Your task to perform on an android device: uninstall "Skype" Image 0: 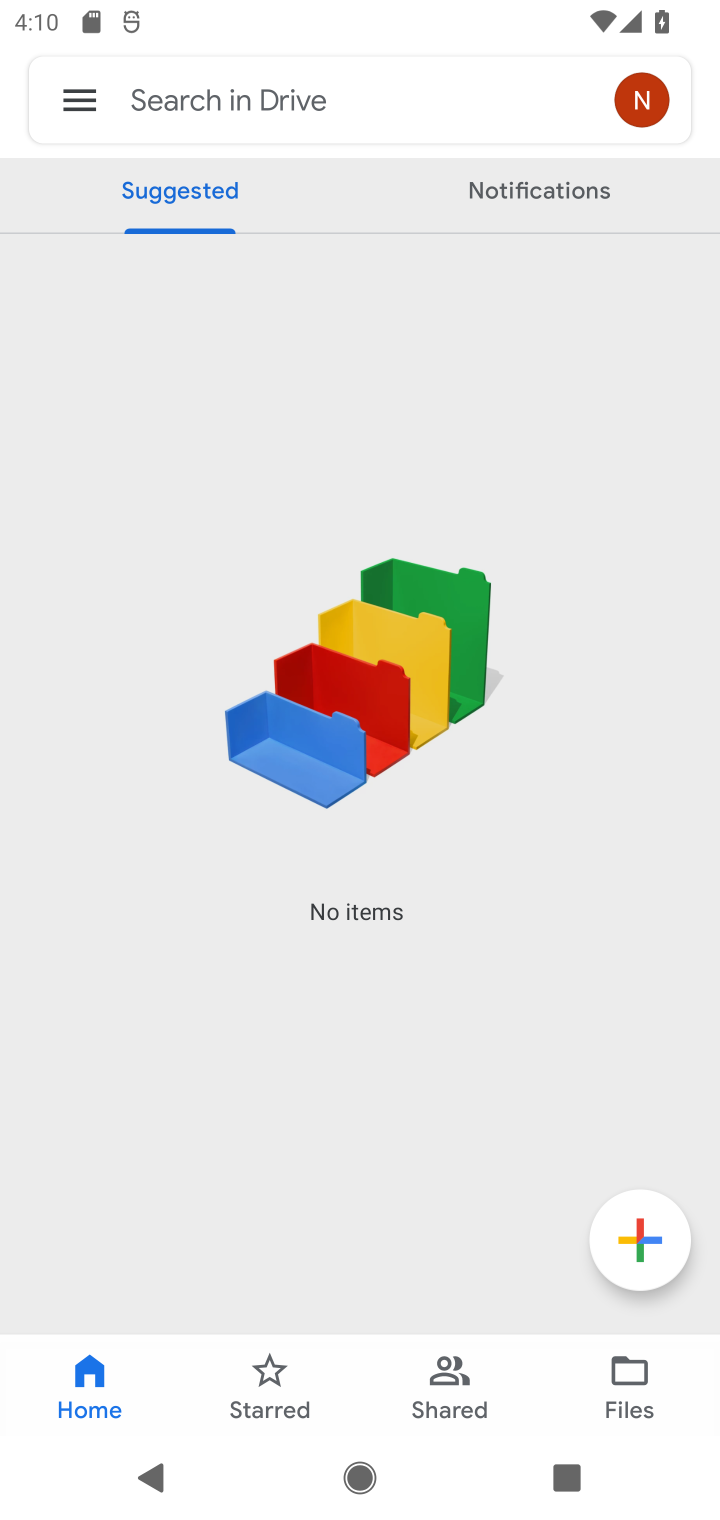
Step 0: press home button
Your task to perform on an android device: uninstall "Skype" Image 1: 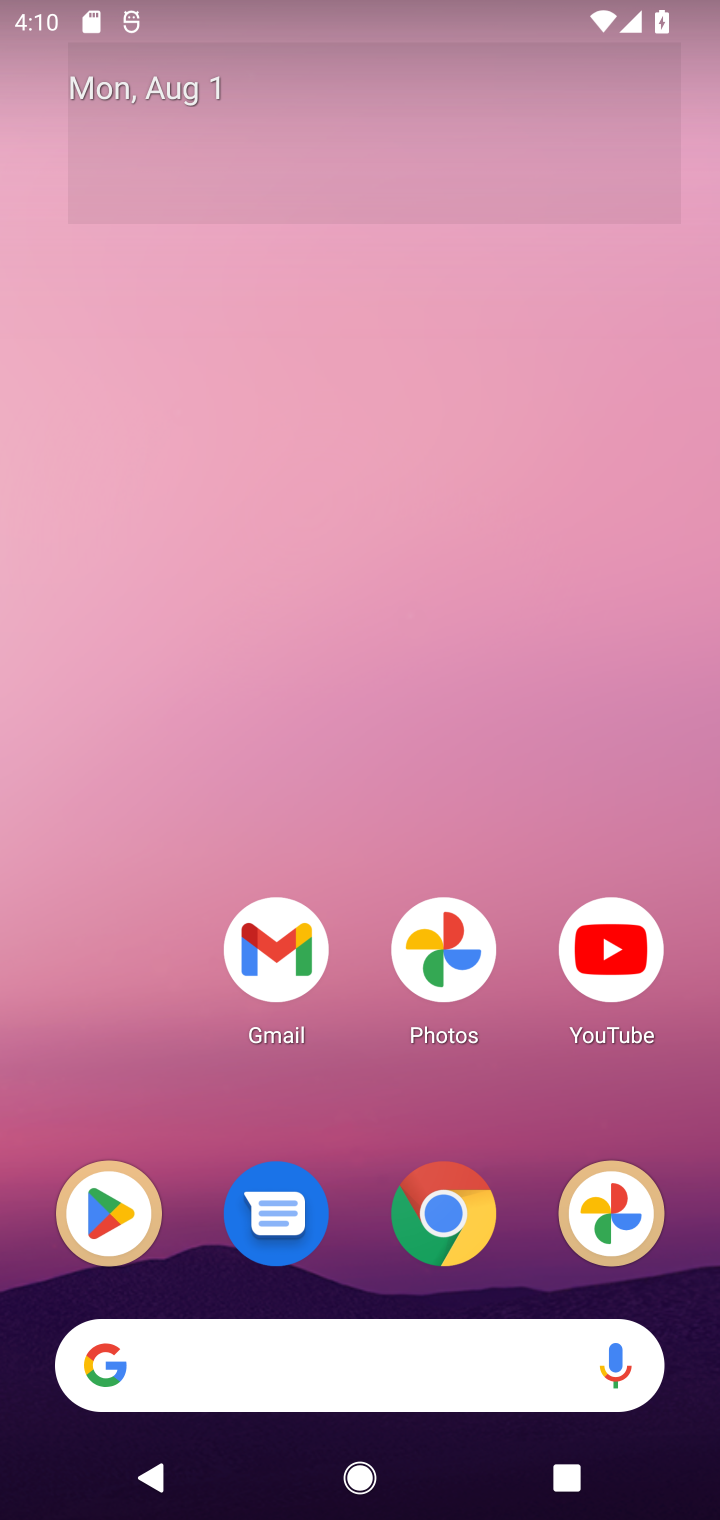
Step 1: drag from (520, 1019) to (486, 310)
Your task to perform on an android device: uninstall "Skype" Image 2: 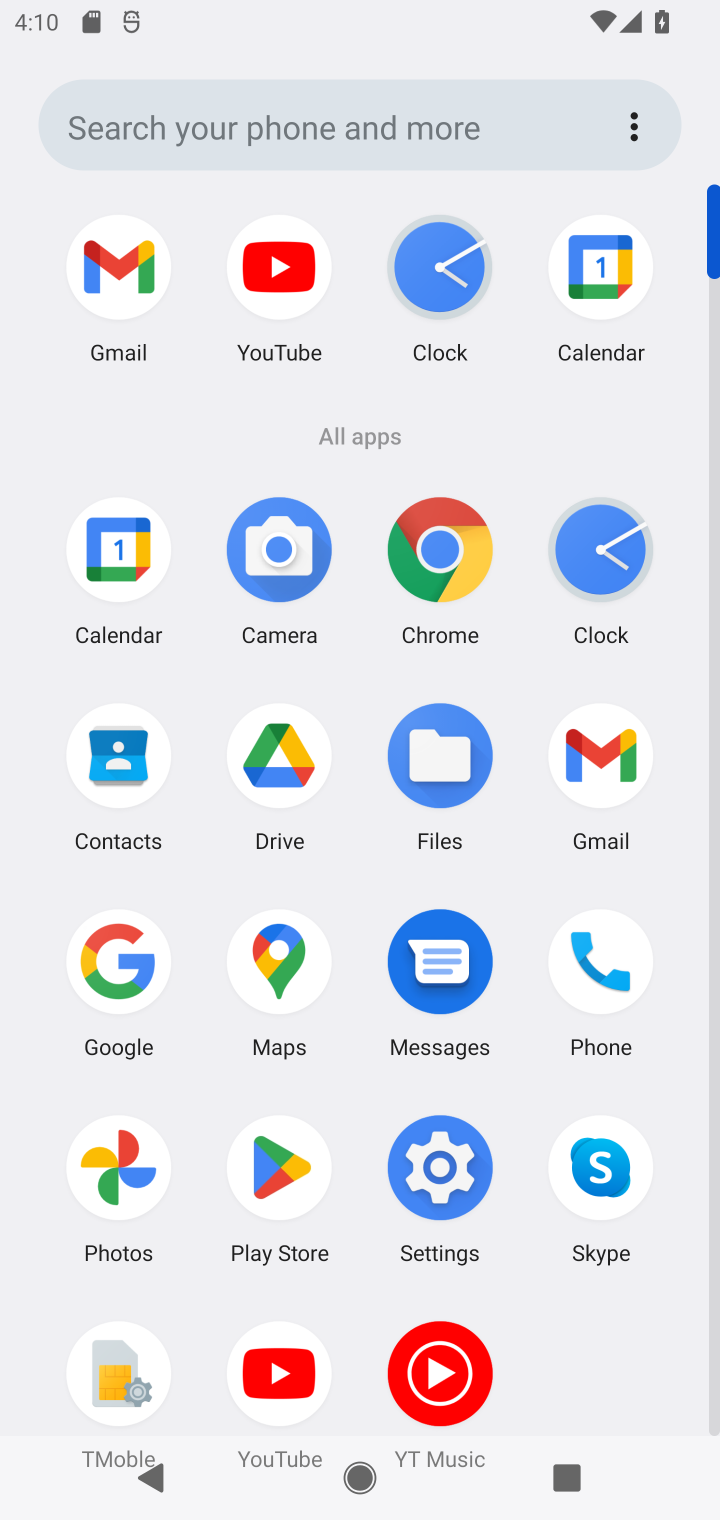
Step 2: click (275, 1165)
Your task to perform on an android device: uninstall "Skype" Image 3: 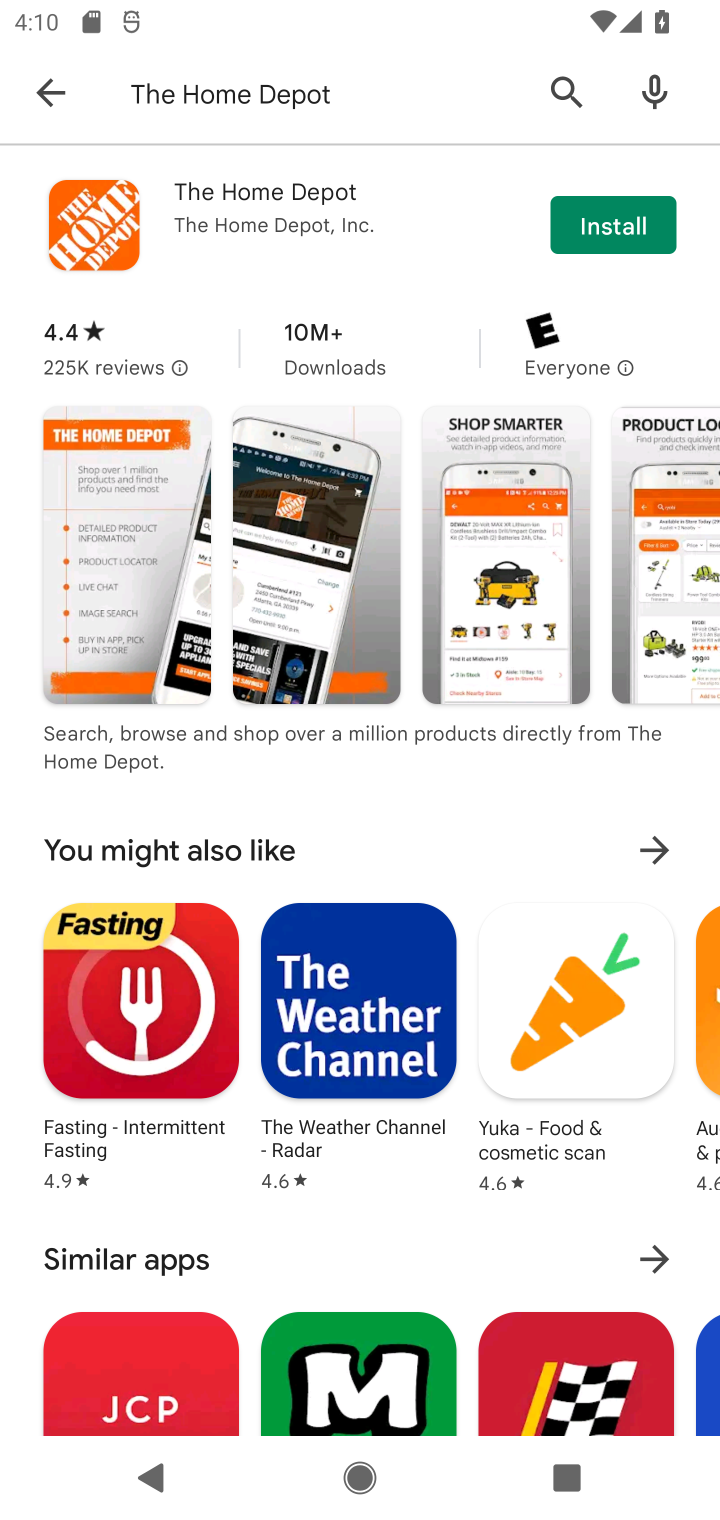
Step 3: click (406, 76)
Your task to perform on an android device: uninstall "Skype" Image 4: 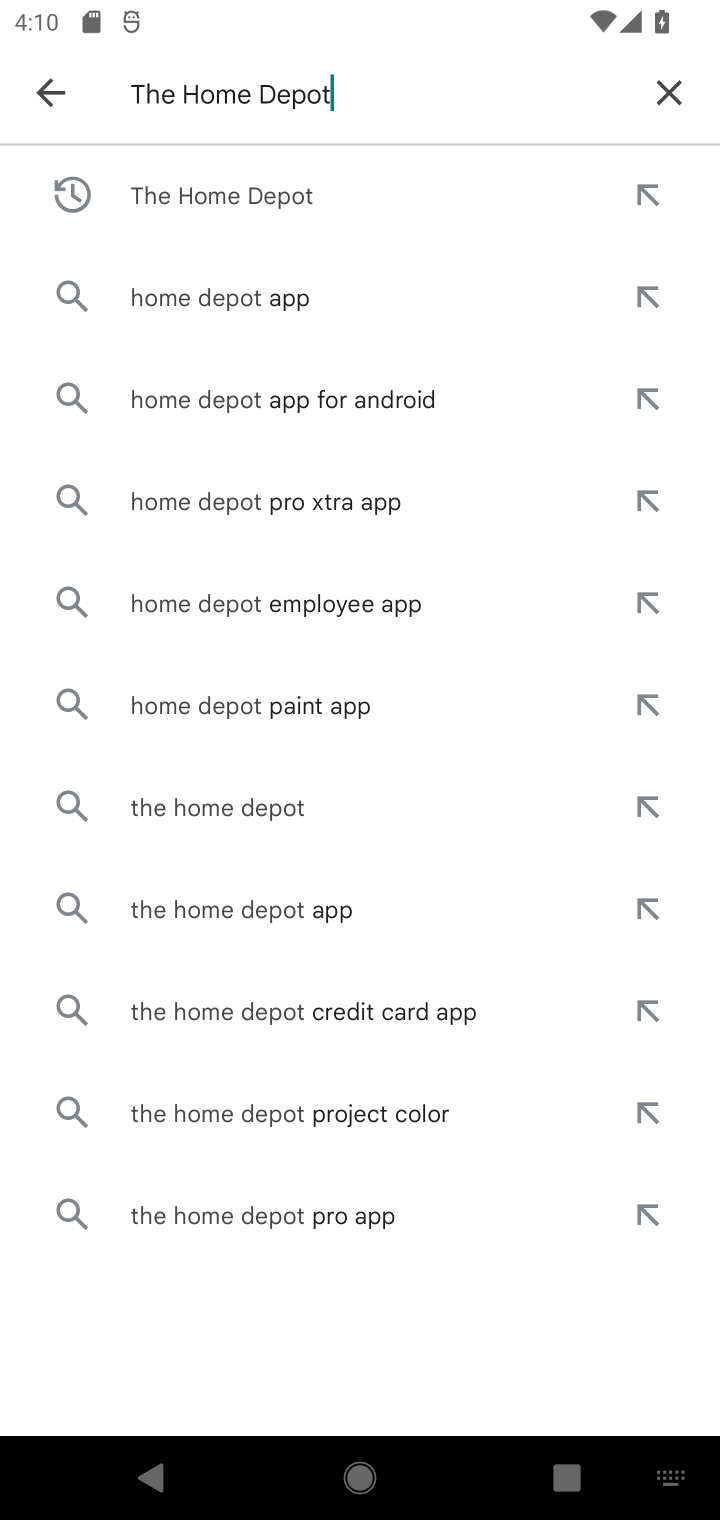
Step 4: click (676, 89)
Your task to perform on an android device: uninstall "Skype" Image 5: 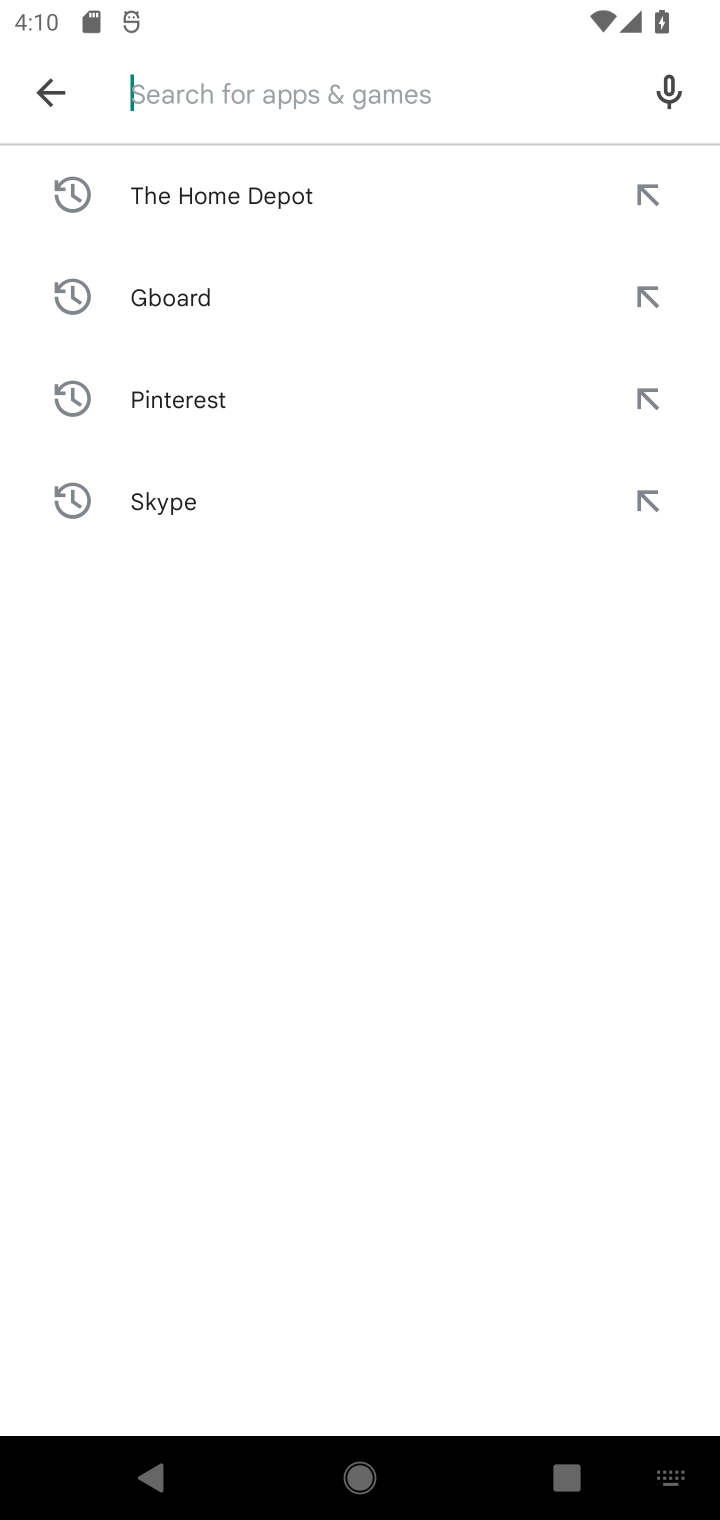
Step 5: type "Skype"
Your task to perform on an android device: uninstall "Skype" Image 6: 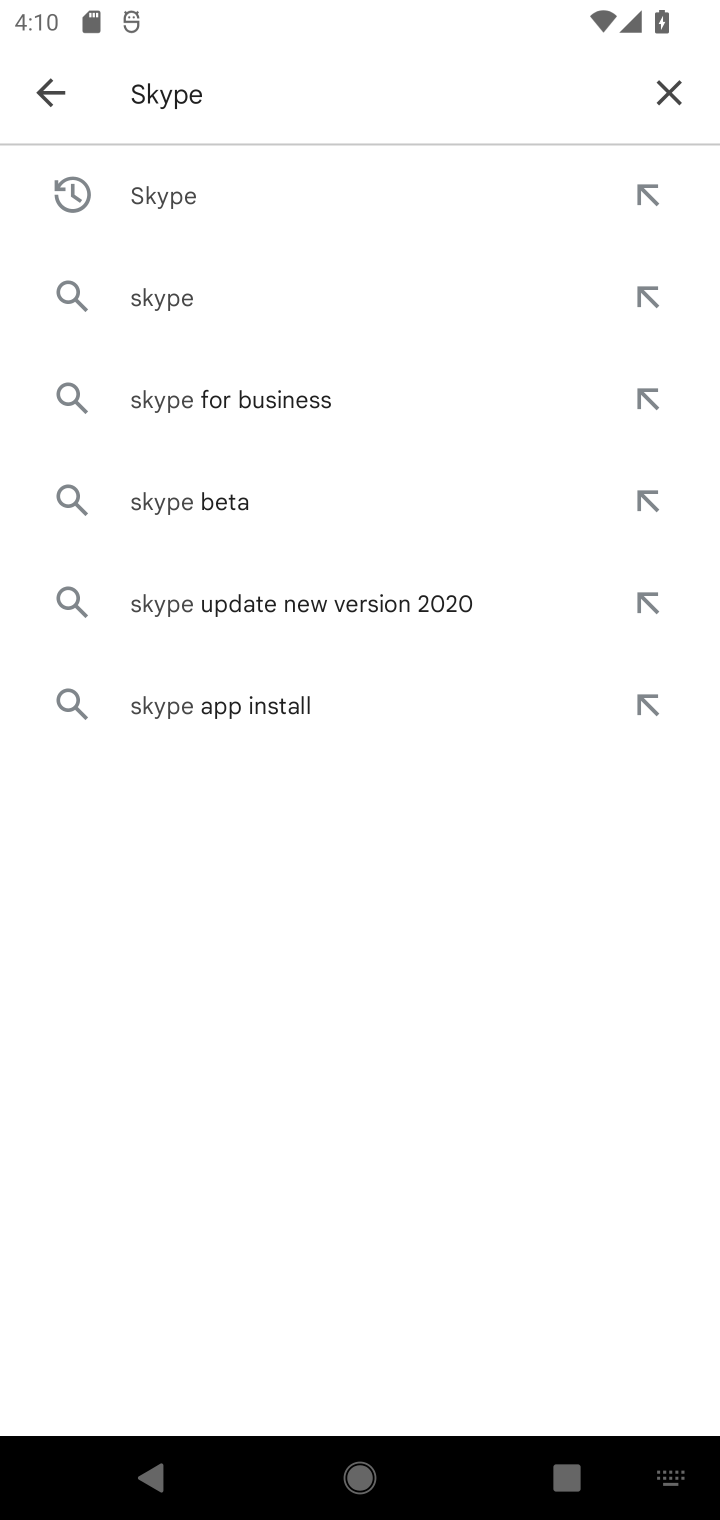
Step 6: click (210, 191)
Your task to perform on an android device: uninstall "Skype" Image 7: 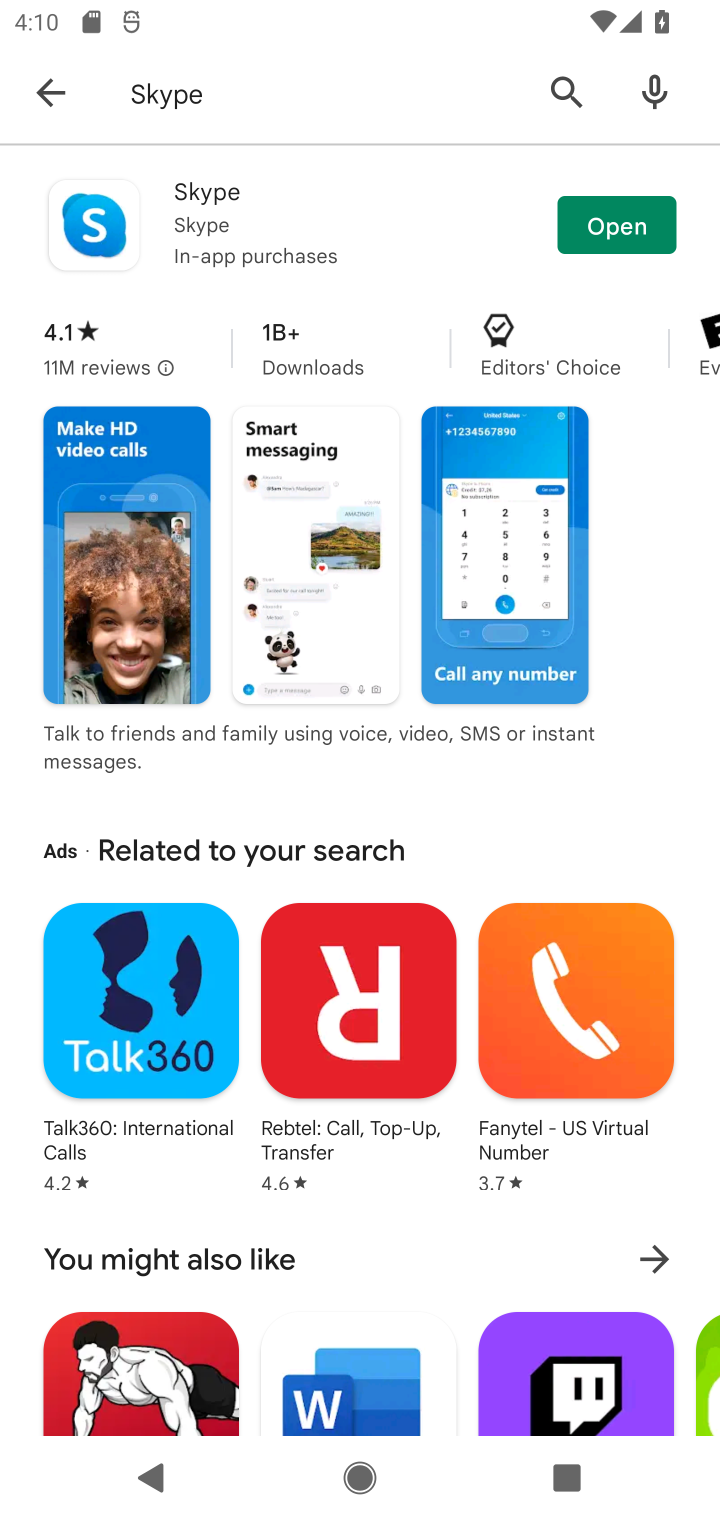
Step 7: task complete